Your task to perform on an android device: Open Google Chrome and click the shortcut for Amazon.com Image 0: 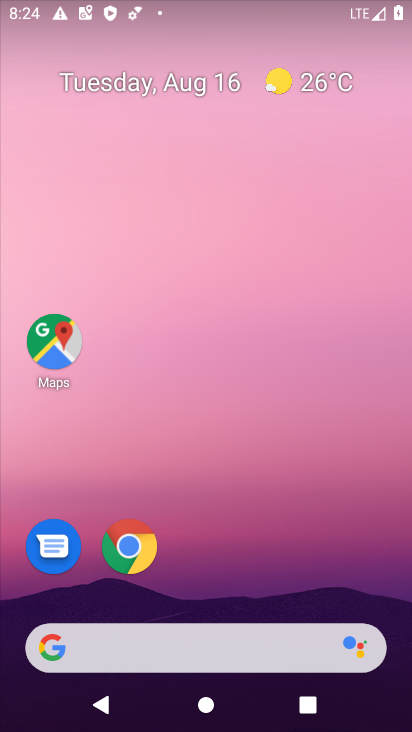
Step 0: click (127, 541)
Your task to perform on an android device: Open Google Chrome and click the shortcut for Amazon.com Image 1: 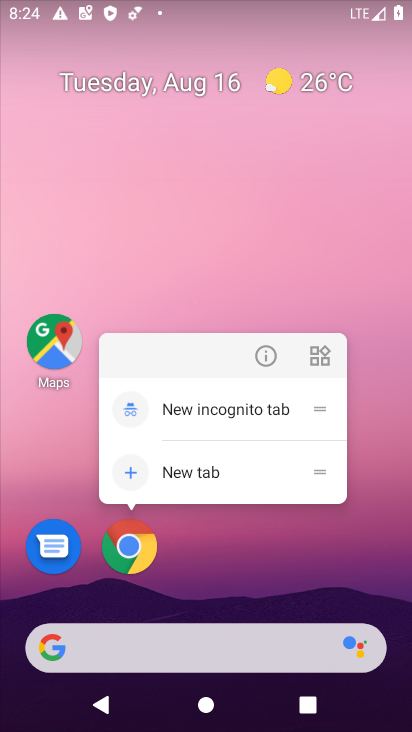
Step 1: click (130, 539)
Your task to perform on an android device: Open Google Chrome and click the shortcut for Amazon.com Image 2: 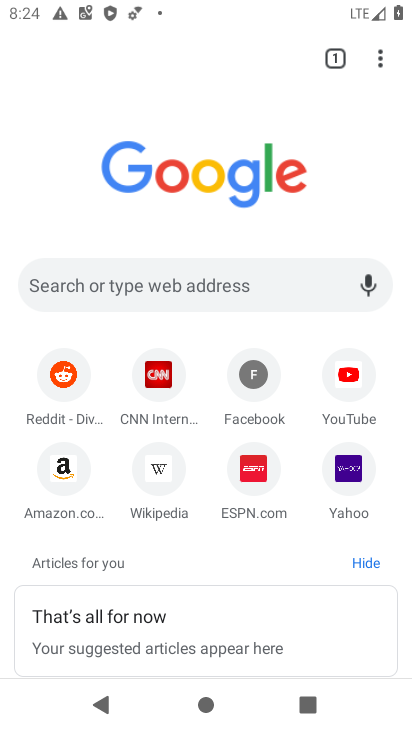
Step 2: click (64, 457)
Your task to perform on an android device: Open Google Chrome and click the shortcut for Amazon.com Image 3: 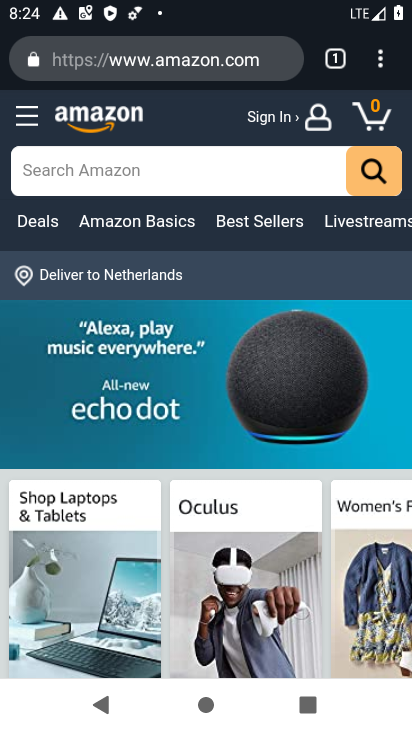
Step 3: task complete